Your task to perform on an android device: Open network settings Image 0: 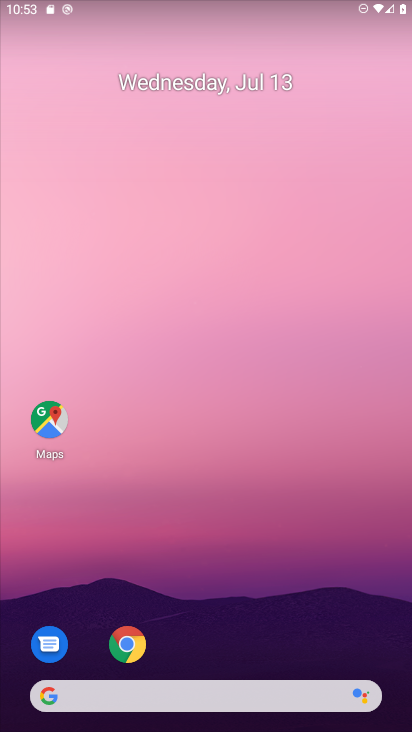
Step 0: drag from (206, 585) to (211, 84)
Your task to perform on an android device: Open network settings Image 1: 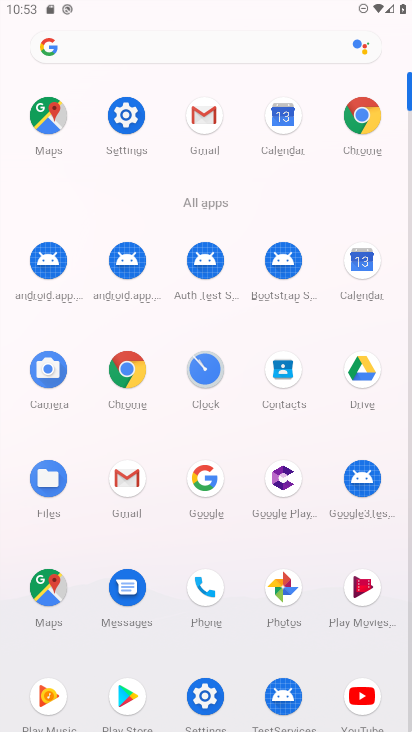
Step 1: click (127, 112)
Your task to perform on an android device: Open network settings Image 2: 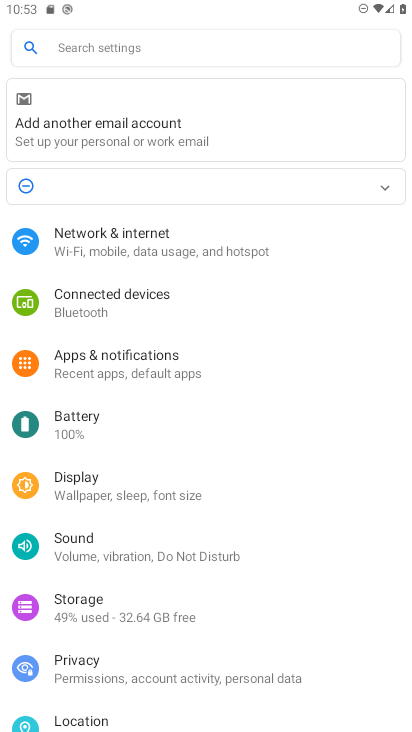
Step 2: click (116, 234)
Your task to perform on an android device: Open network settings Image 3: 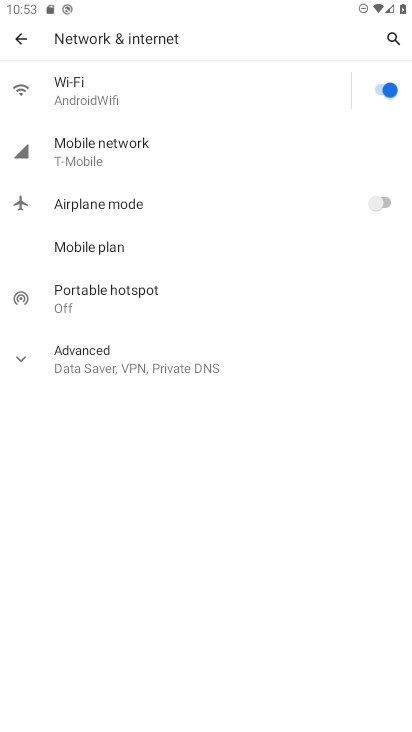
Step 3: task complete